Your task to perform on an android device: turn notification dots on Image 0: 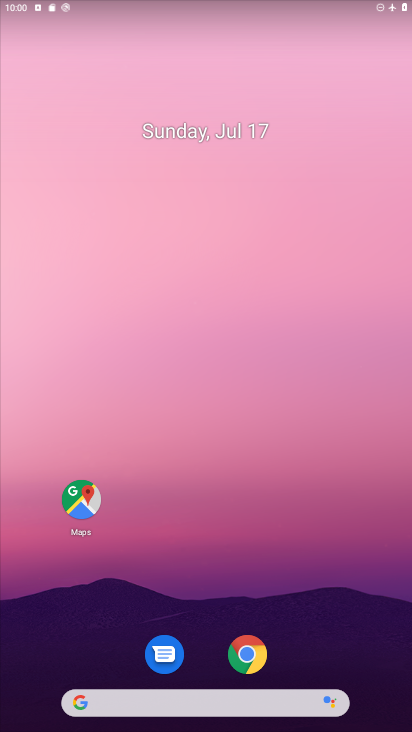
Step 0: drag from (197, 616) to (241, 26)
Your task to perform on an android device: turn notification dots on Image 1: 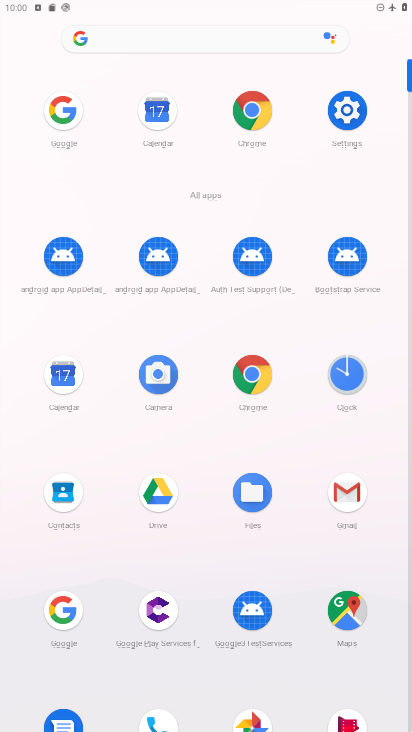
Step 1: click (345, 103)
Your task to perform on an android device: turn notification dots on Image 2: 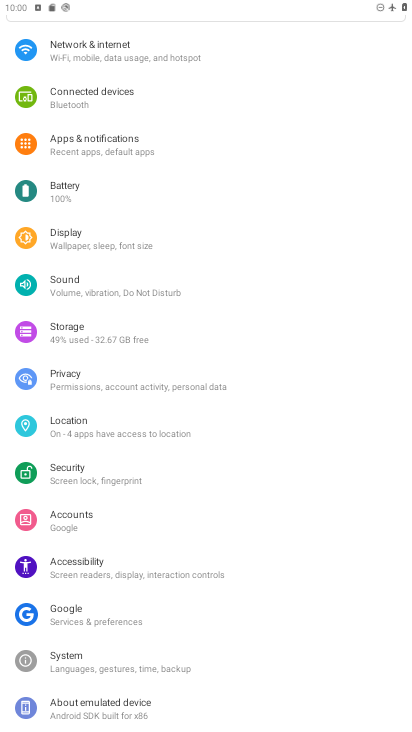
Step 2: click (136, 142)
Your task to perform on an android device: turn notification dots on Image 3: 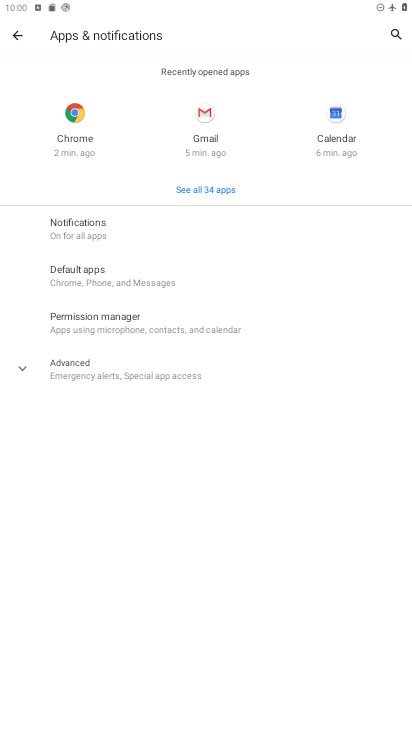
Step 3: click (61, 230)
Your task to perform on an android device: turn notification dots on Image 4: 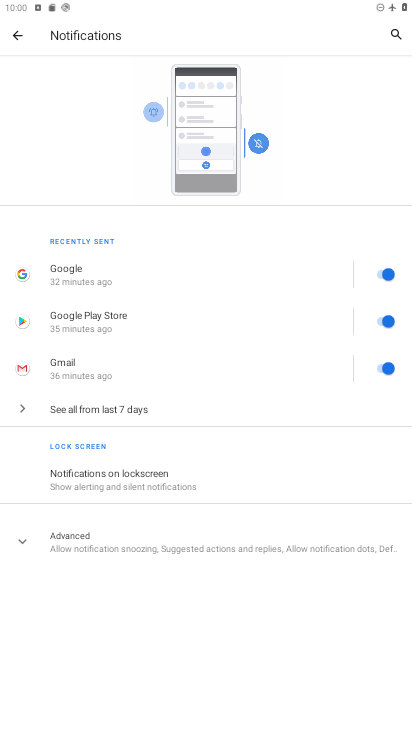
Step 4: click (94, 539)
Your task to perform on an android device: turn notification dots on Image 5: 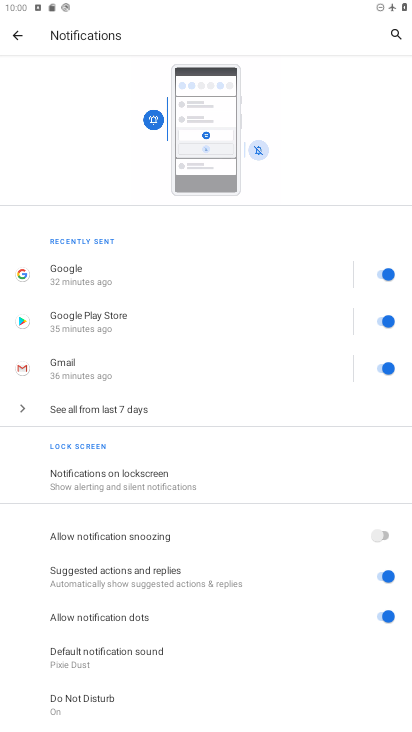
Step 5: click (380, 614)
Your task to perform on an android device: turn notification dots on Image 6: 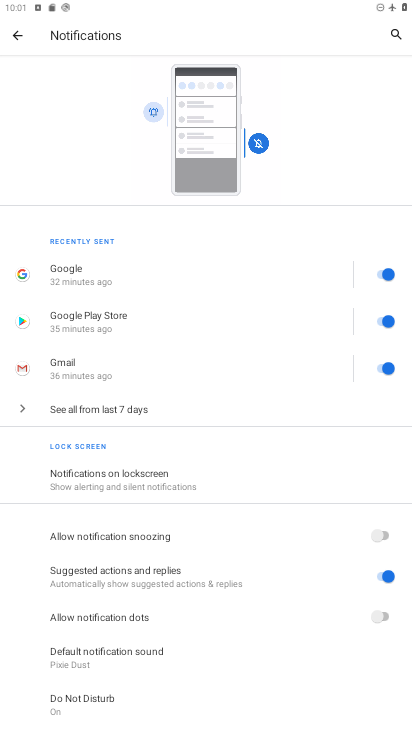
Step 6: click (384, 619)
Your task to perform on an android device: turn notification dots on Image 7: 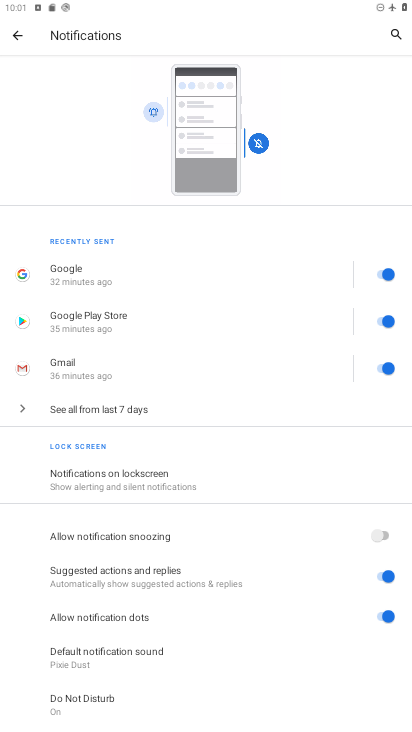
Step 7: task complete